Your task to perform on an android device: Open the stopwatch Image 0: 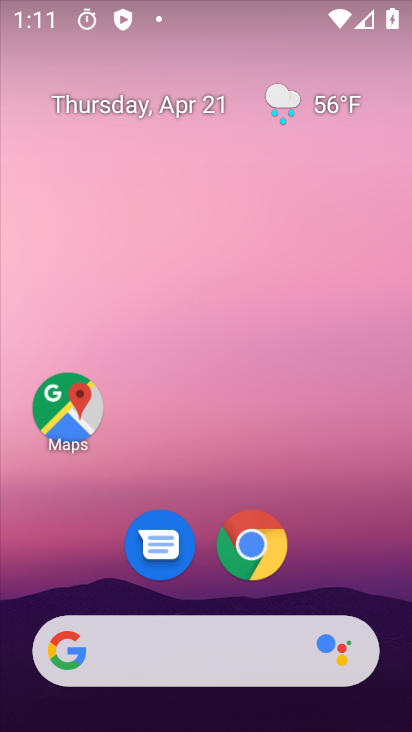
Step 0: drag from (183, 651) to (310, 113)
Your task to perform on an android device: Open the stopwatch Image 1: 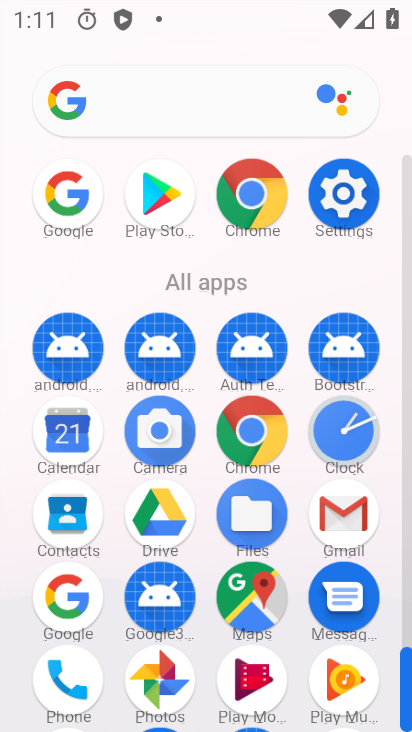
Step 1: click (334, 433)
Your task to perform on an android device: Open the stopwatch Image 2: 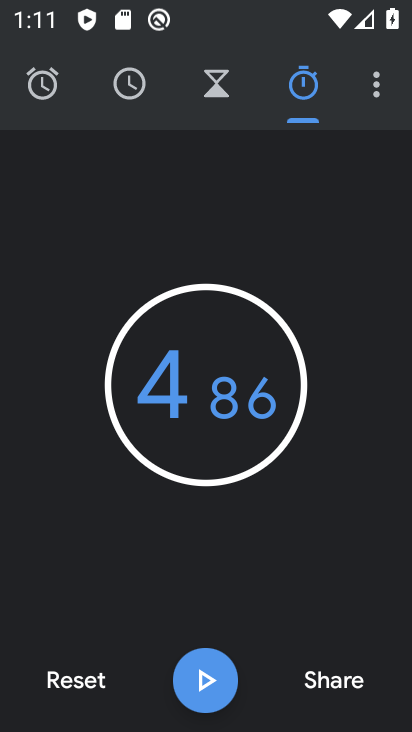
Step 2: task complete